Your task to perform on an android device: toggle location history Image 0: 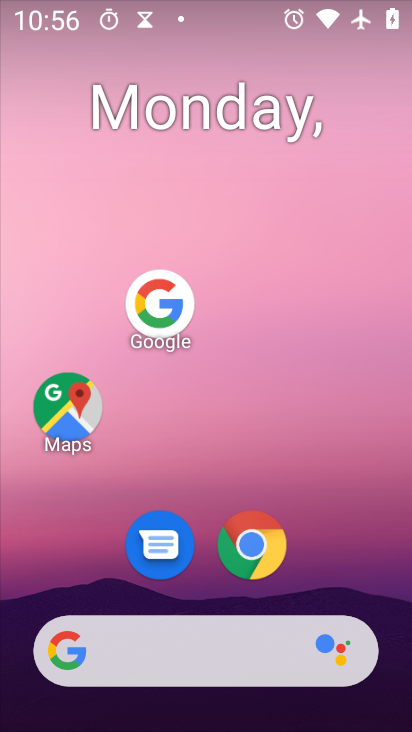
Step 0: press home button
Your task to perform on an android device: toggle location history Image 1: 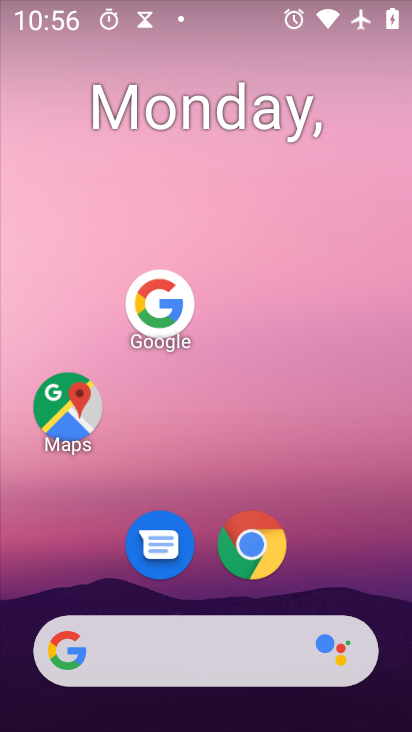
Step 1: click (60, 422)
Your task to perform on an android device: toggle location history Image 2: 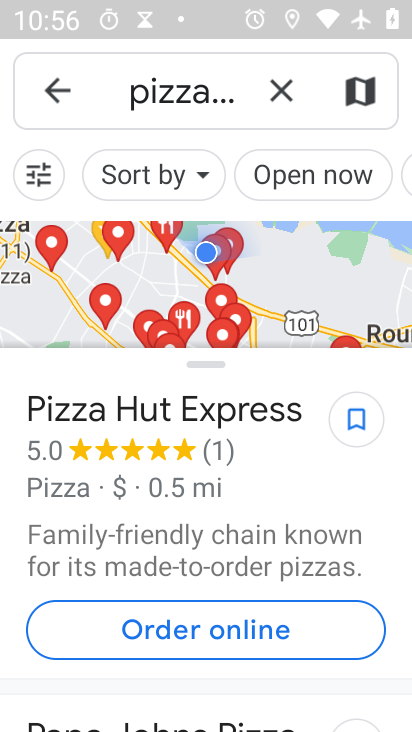
Step 2: click (48, 97)
Your task to perform on an android device: toggle location history Image 3: 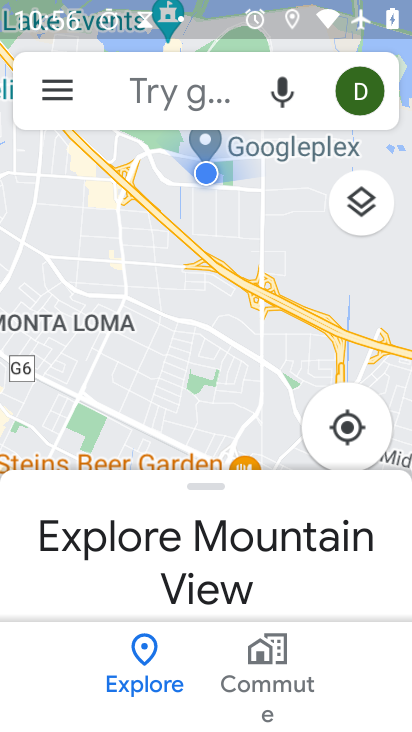
Step 3: click (59, 96)
Your task to perform on an android device: toggle location history Image 4: 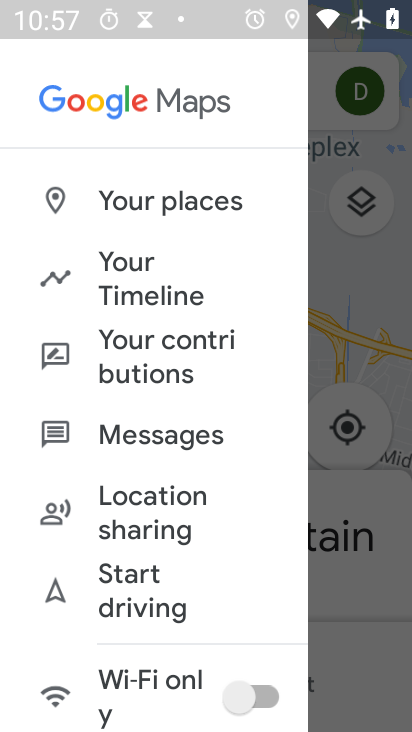
Step 4: click (141, 287)
Your task to perform on an android device: toggle location history Image 5: 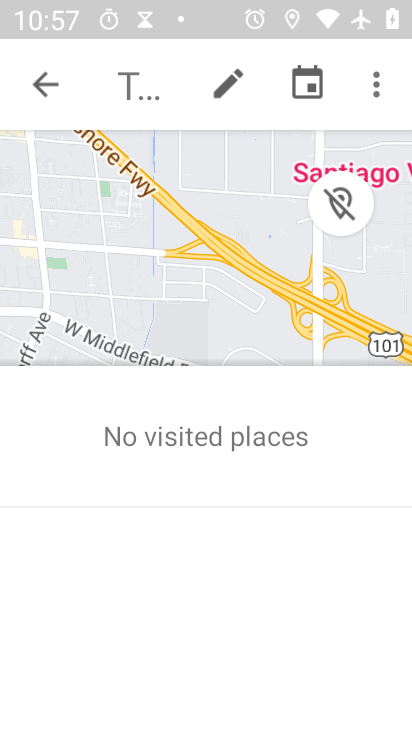
Step 5: click (380, 88)
Your task to perform on an android device: toggle location history Image 6: 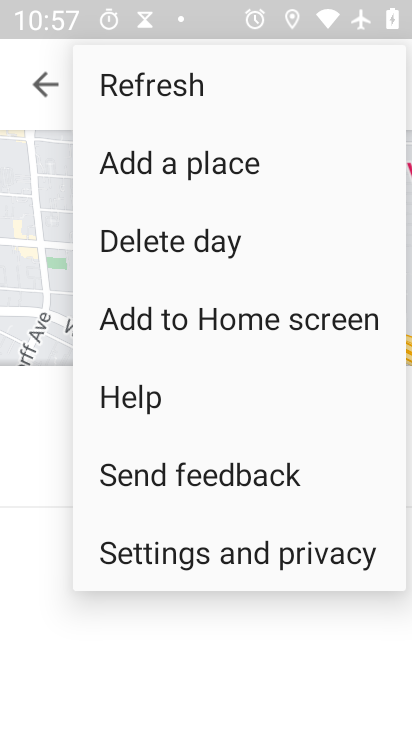
Step 6: click (219, 556)
Your task to perform on an android device: toggle location history Image 7: 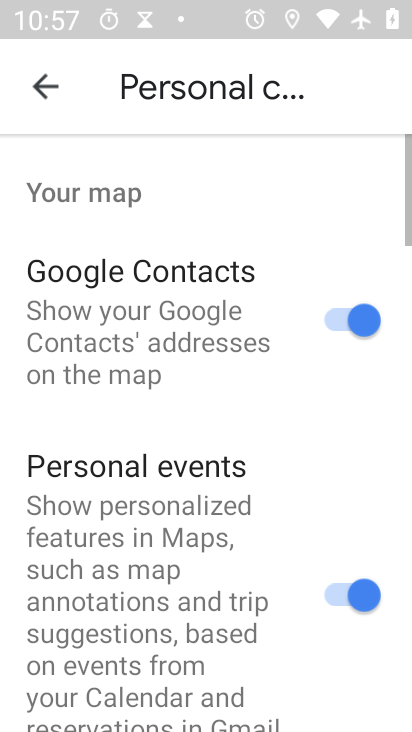
Step 7: drag from (139, 630) to (292, 130)
Your task to perform on an android device: toggle location history Image 8: 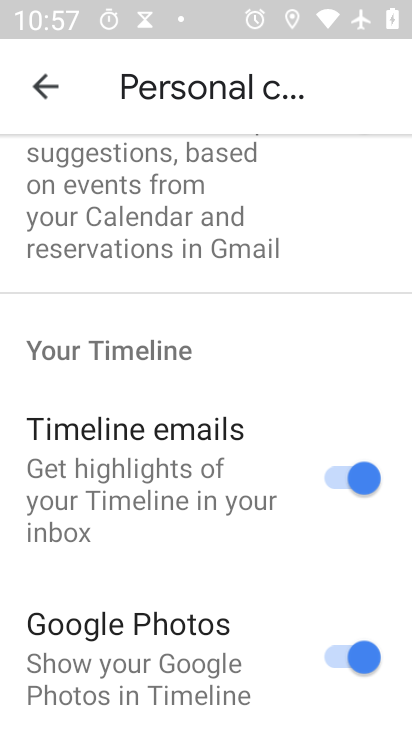
Step 8: drag from (142, 662) to (360, 67)
Your task to perform on an android device: toggle location history Image 9: 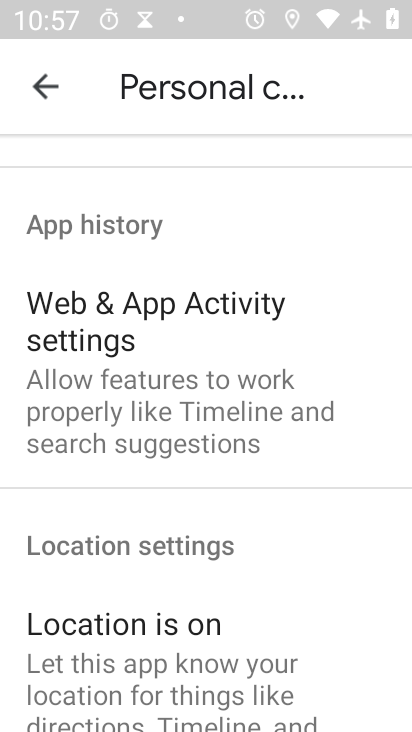
Step 9: drag from (231, 573) to (334, 130)
Your task to perform on an android device: toggle location history Image 10: 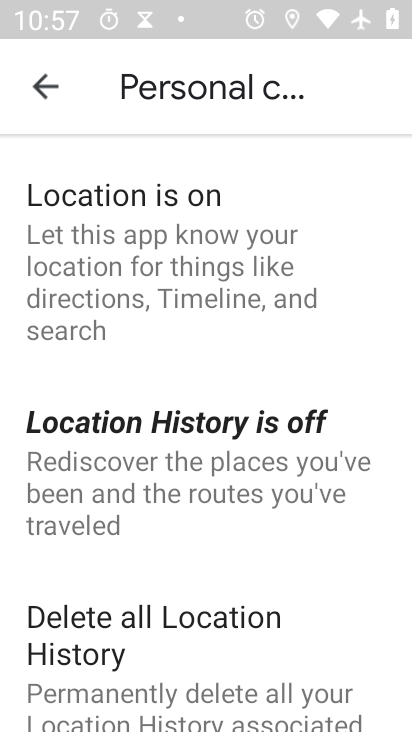
Step 10: click (224, 433)
Your task to perform on an android device: toggle location history Image 11: 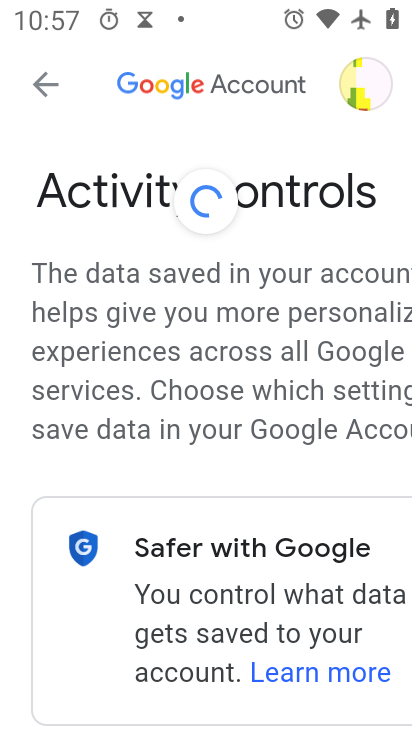
Step 11: drag from (198, 634) to (304, 228)
Your task to perform on an android device: toggle location history Image 12: 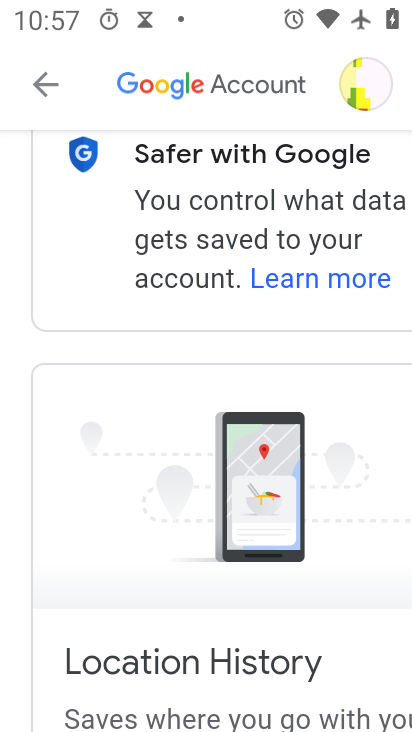
Step 12: drag from (216, 615) to (305, 109)
Your task to perform on an android device: toggle location history Image 13: 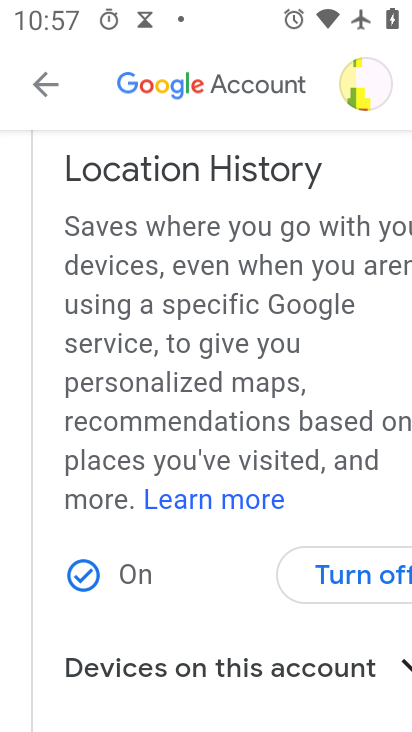
Step 13: click (359, 574)
Your task to perform on an android device: toggle location history Image 14: 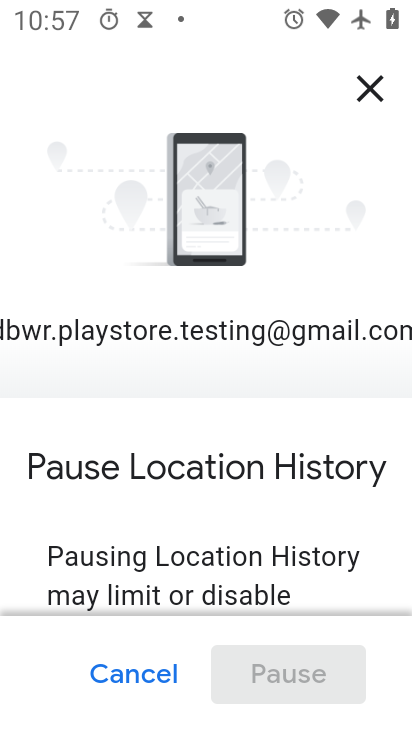
Step 14: drag from (299, 595) to (335, 228)
Your task to perform on an android device: toggle location history Image 15: 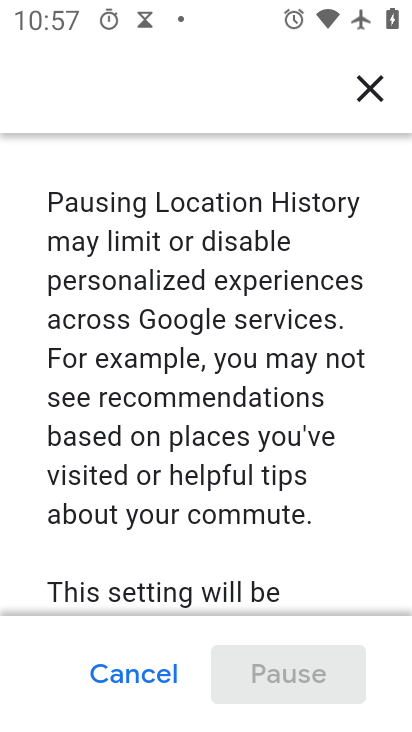
Step 15: drag from (222, 567) to (366, 86)
Your task to perform on an android device: toggle location history Image 16: 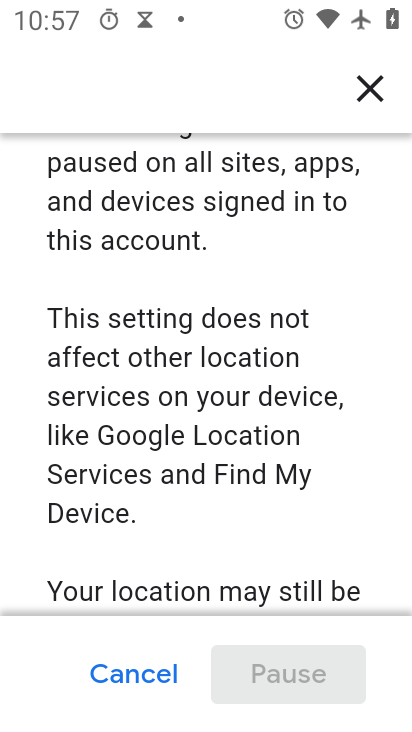
Step 16: drag from (244, 568) to (367, 40)
Your task to perform on an android device: toggle location history Image 17: 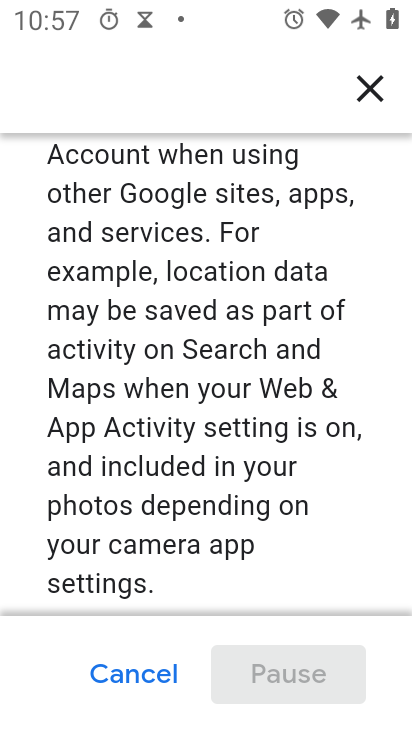
Step 17: drag from (252, 548) to (398, 35)
Your task to perform on an android device: toggle location history Image 18: 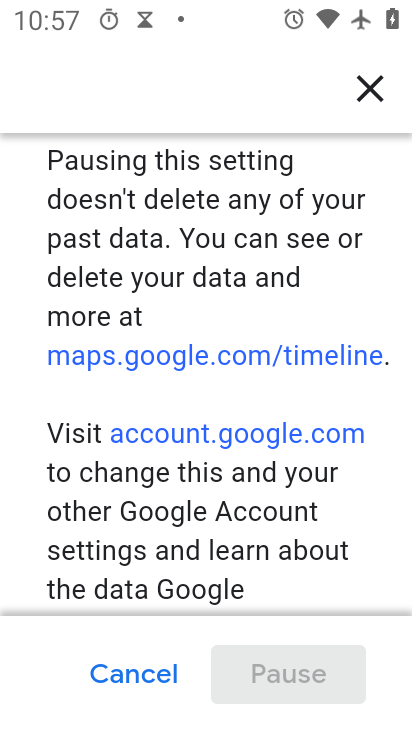
Step 18: drag from (295, 567) to (372, 125)
Your task to perform on an android device: toggle location history Image 19: 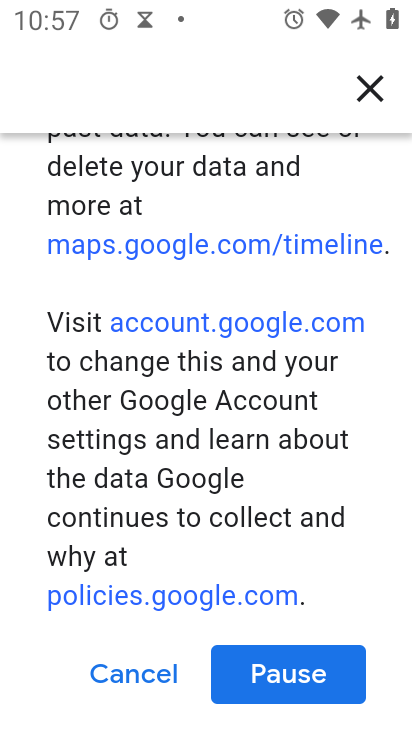
Step 19: click (282, 679)
Your task to perform on an android device: toggle location history Image 20: 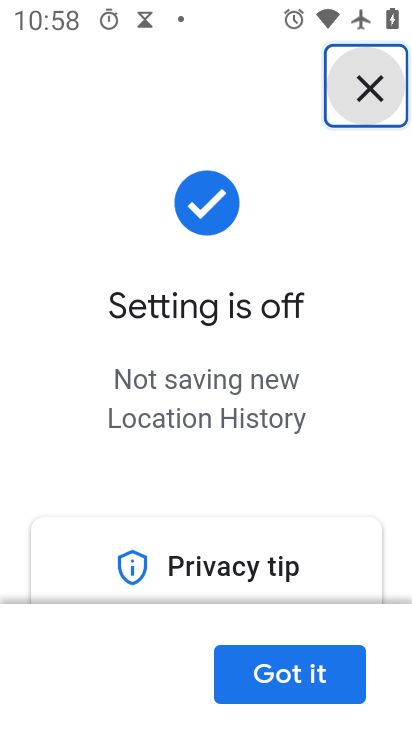
Step 20: click (299, 679)
Your task to perform on an android device: toggle location history Image 21: 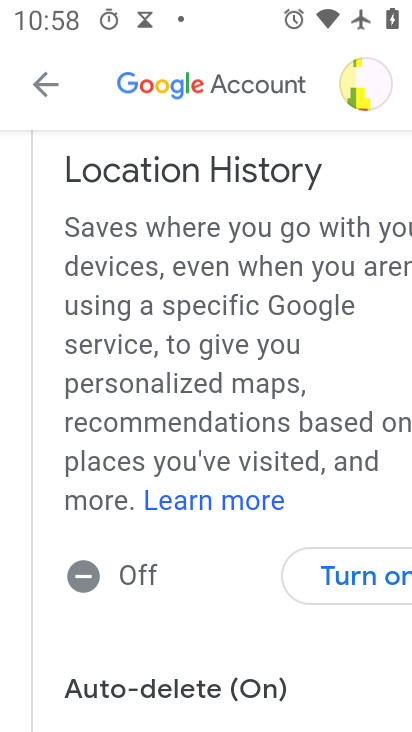
Step 21: task complete